Your task to perform on an android device: refresh tabs in the chrome app Image 0: 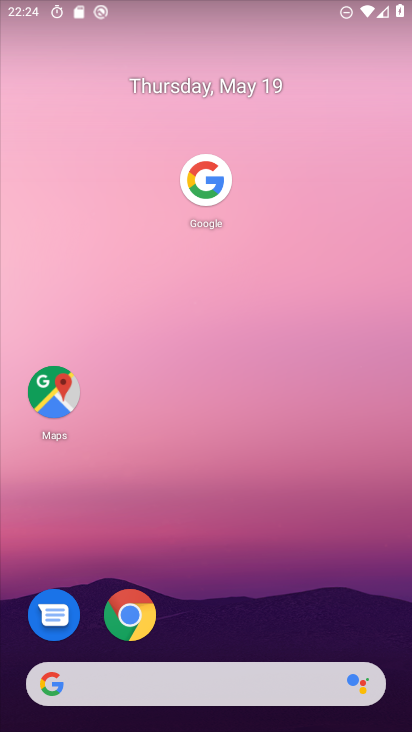
Step 0: drag from (213, 605) to (232, 403)
Your task to perform on an android device: refresh tabs in the chrome app Image 1: 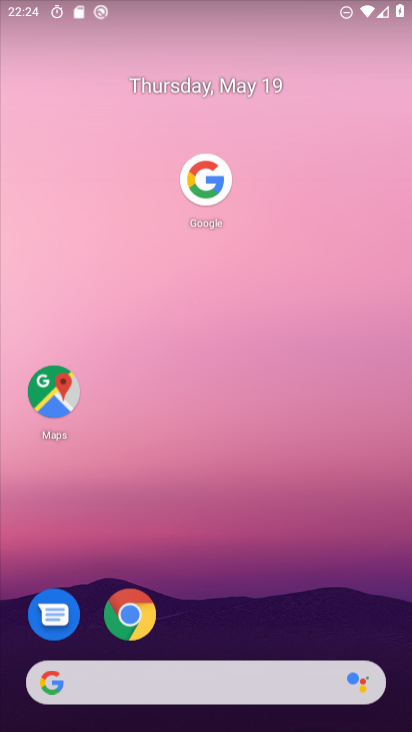
Step 1: click (216, 362)
Your task to perform on an android device: refresh tabs in the chrome app Image 2: 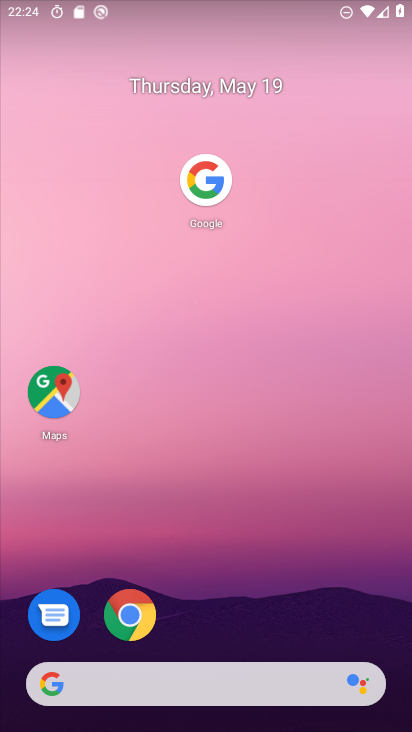
Step 2: click (136, 611)
Your task to perform on an android device: refresh tabs in the chrome app Image 3: 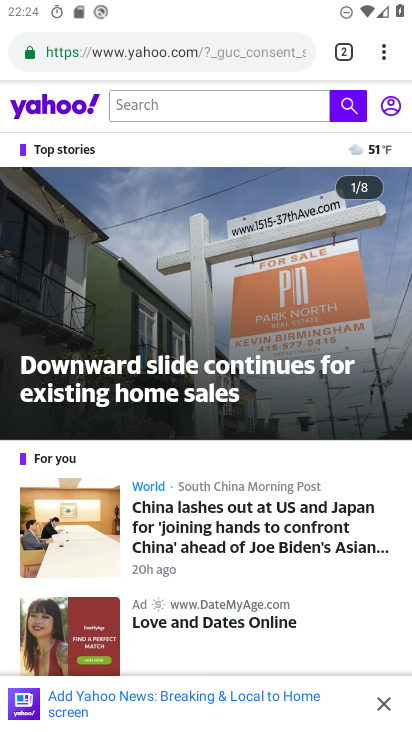
Step 3: click (375, 54)
Your task to perform on an android device: refresh tabs in the chrome app Image 4: 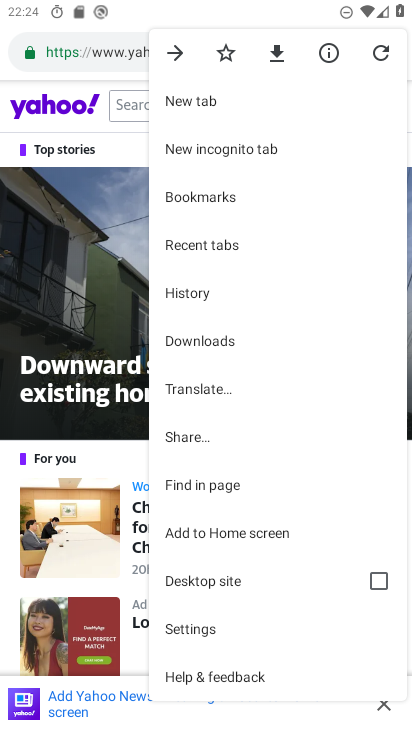
Step 4: click (379, 57)
Your task to perform on an android device: refresh tabs in the chrome app Image 5: 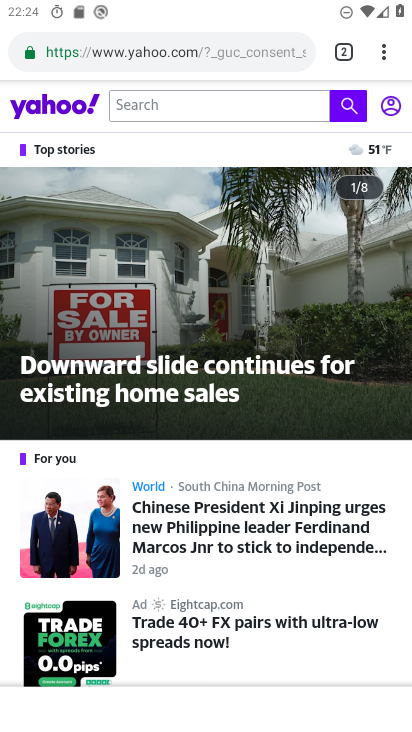
Step 5: task complete